Your task to perform on an android device: toggle data saver in the chrome app Image 0: 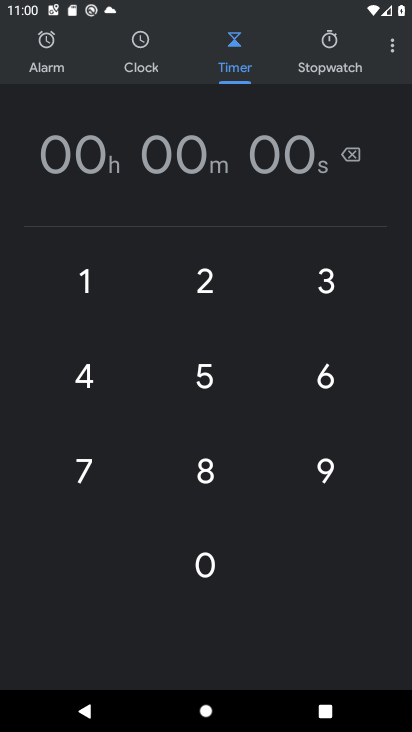
Step 0: press home button
Your task to perform on an android device: toggle data saver in the chrome app Image 1: 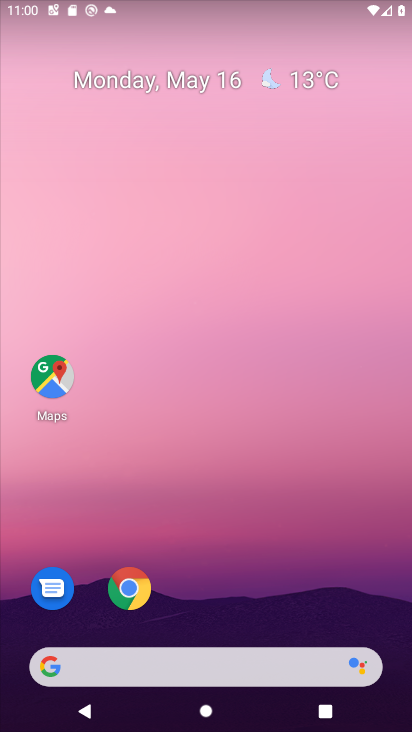
Step 1: click (133, 581)
Your task to perform on an android device: toggle data saver in the chrome app Image 2: 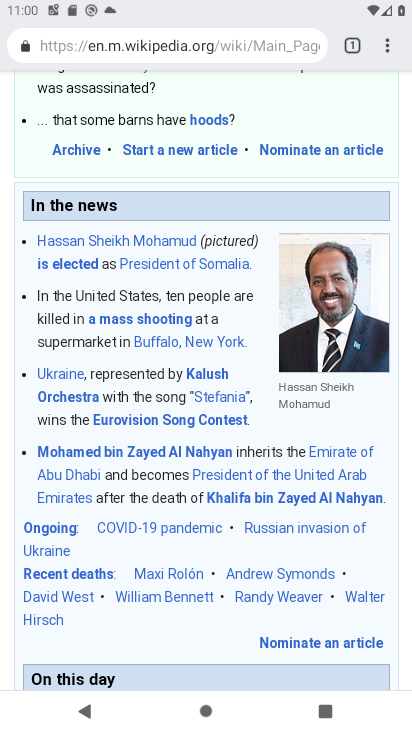
Step 2: click (386, 45)
Your task to perform on an android device: toggle data saver in the chrome app Image 3: 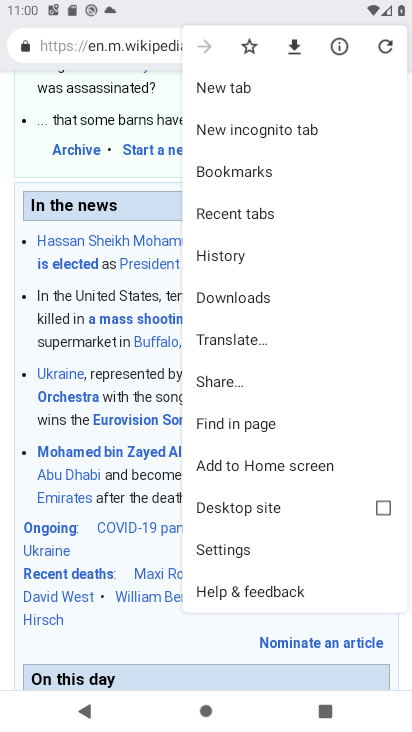
Step 3: click (254, 541)
Your task to perform on an android device: toggle data saver in the chrome app Image 4: 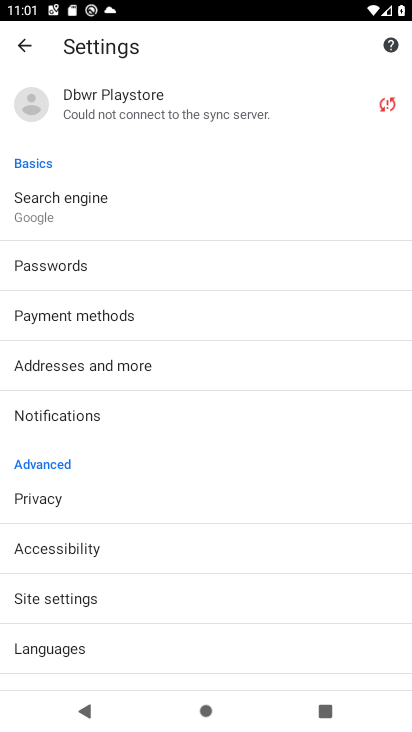
Step 4: drag from (126, 647) to (156, 214)
Your task to perform on an android device: toggle data saver in the chrome app Image 5: 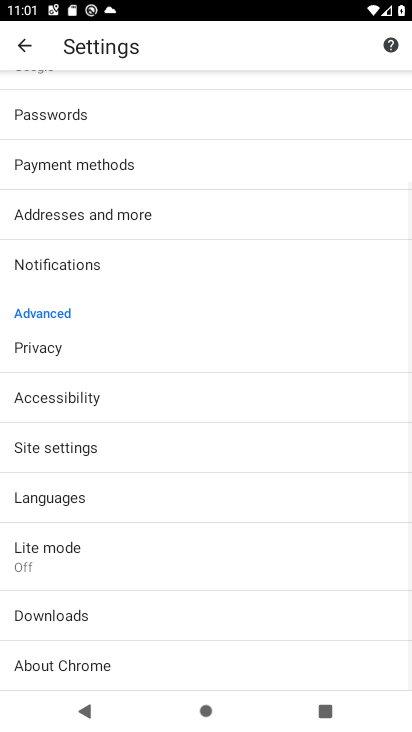
Step 5: click (54, 564)
Your task to perform on an android device: toggle data saver in the chrome app Image 6: 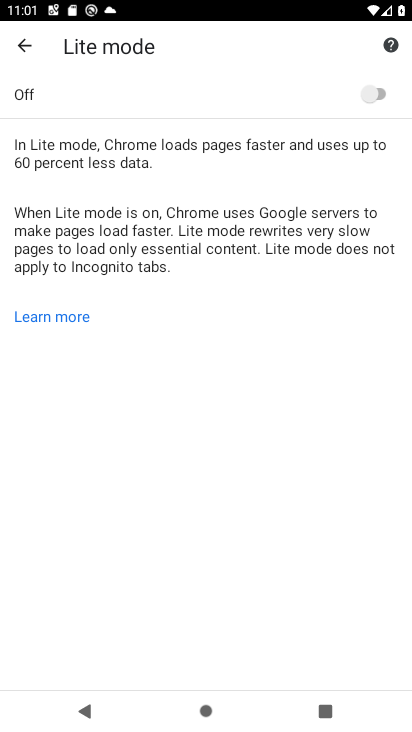
Step 6: click (381, 88)
Your task to perform on an android device: toggle data saver in the chrome app Image 7: 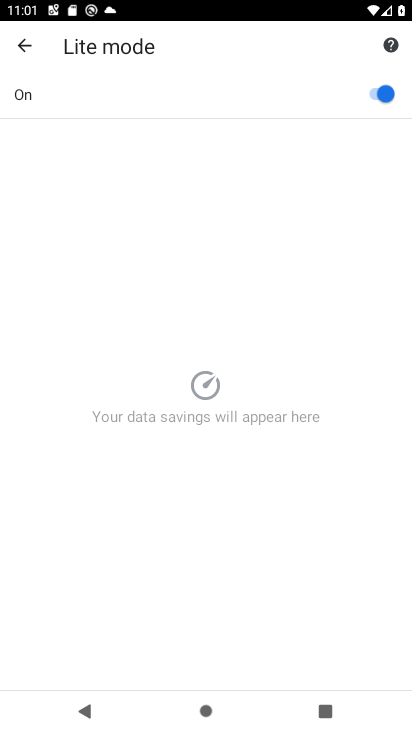
Step 7: task complete